Your task to perform on an android device: turn notification dots on Image 0: 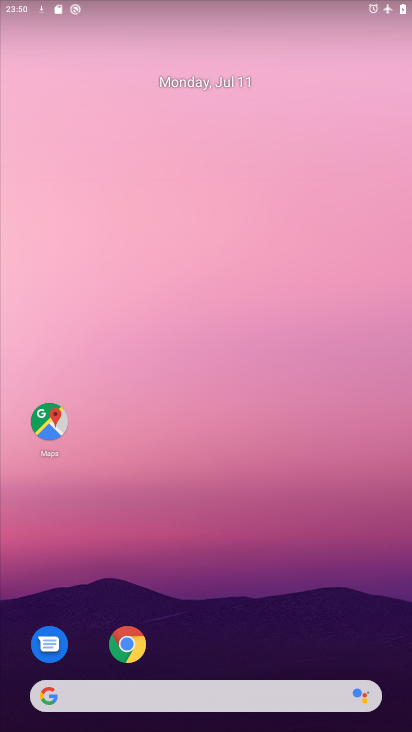
Step 0: click (213, 285)
Your task to perform on an android device: turn notification dots on Image 1: 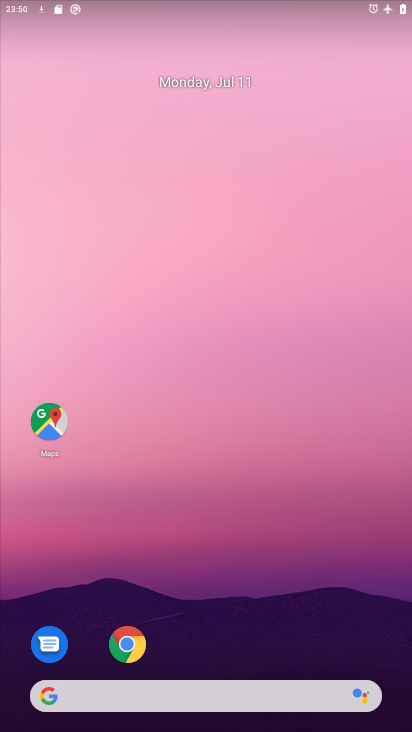
Step 1: drag from (214, 727) to (199, 328)
Your task to perform on an android device: turn notification dots on Image 2: 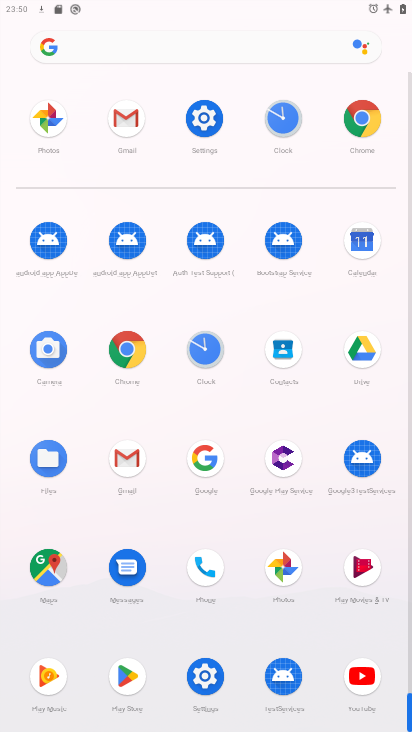
Step 2: click (198, 109)
Your task to perform on an android device: turn notification dots on Image 3: 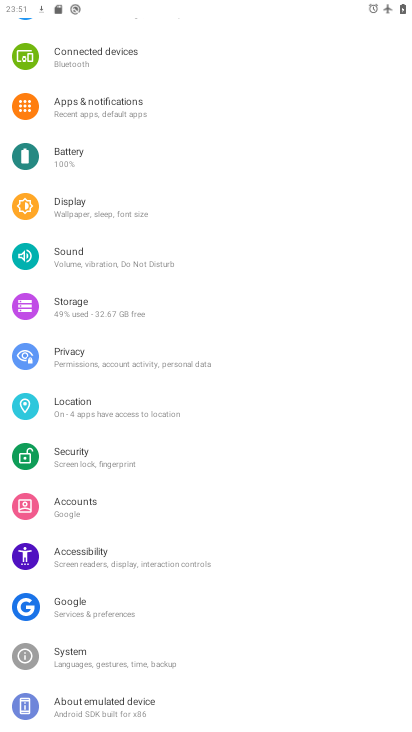
Step 3: drag from (152, 60) to (165, 529)
Your task to perform on an android device: turn notification dots on Image 4: 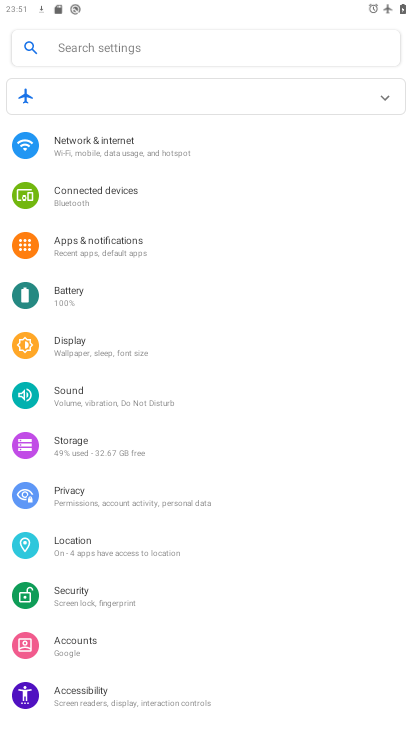
Step 4: click (224, 42)
Your task to perform on an android device: turn notification dots on Image 5: 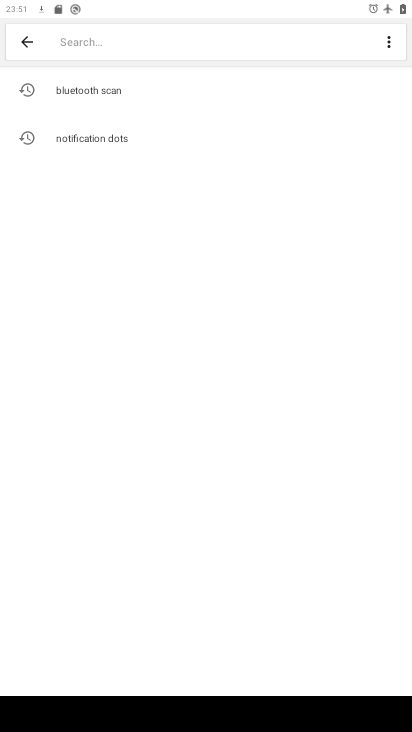
Step 5: click (102, 132)
Your task to perform on an android device: turn notification dots on Image 6: 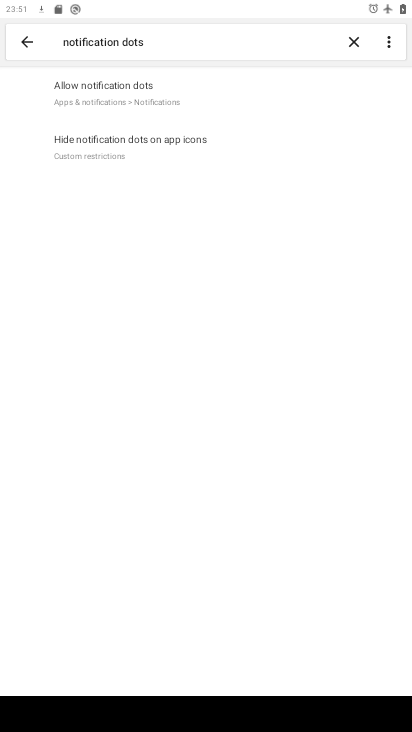
Step 6: click (131, 92)
Your task to perform on an android device: turn notification dots on Image 7: 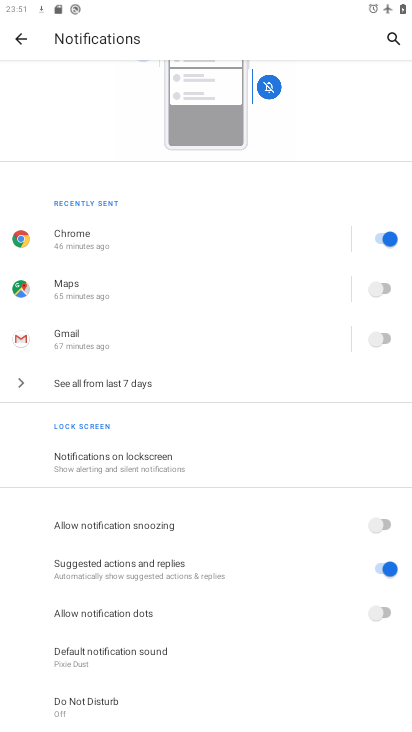
Step 7: task complete